Your task to perform on an android device: Empty the shopping cart on costco. Search for razer thresher on costco, select the first entry, add it to the cart, then select checkout. Image 0: 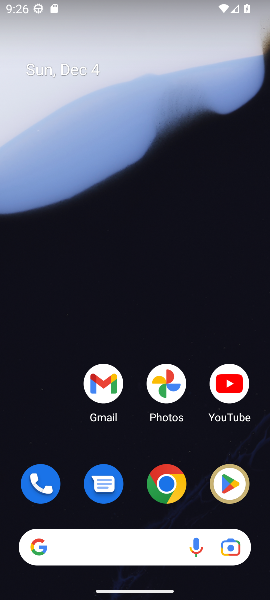
Step 0: click (173, 478)
Your task to perform on an android device: Empty the shopping cart on costco. Search for razer thresher on costco, select the first entry, add it to the cart, then select checkout. Image 1: 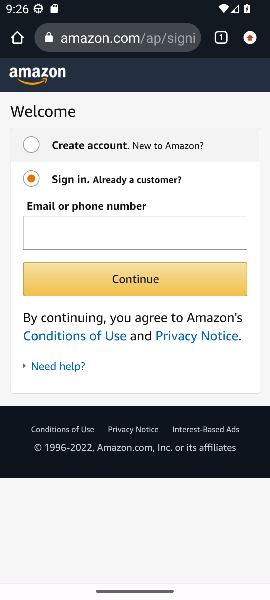
Step 1: click (122, 41)
Your task to perform on an android device: Empty the shopping cart on costco. Search for razer thresher on costco, select the first entry, add it to the cart, then select checkout. Image 2: 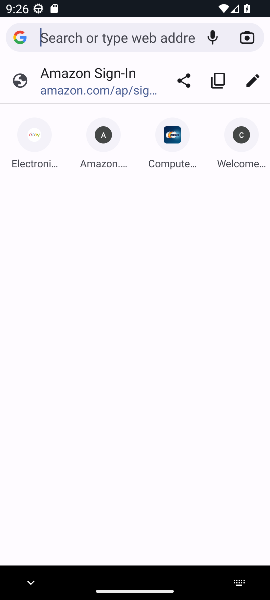
Step 2: type "costco.com"
Your task to perform on an android device: Empty the shopping cart on costco. Search for razer thresher on costco, select the first entry, add it to the cart, then select checkout. Image 3: 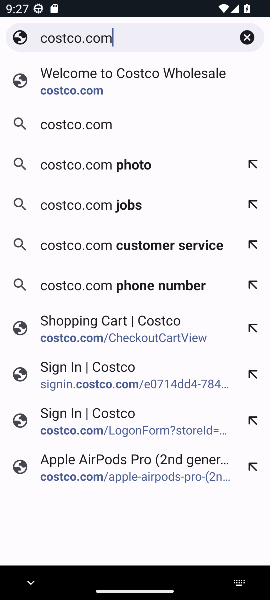
Step 3: click (69, 91)
Your task to perform on an android device: Empty the shopping cart on costco. Search for razer thresher on costco, select the first entry, add it to the cart, then select checkout. Image 4: 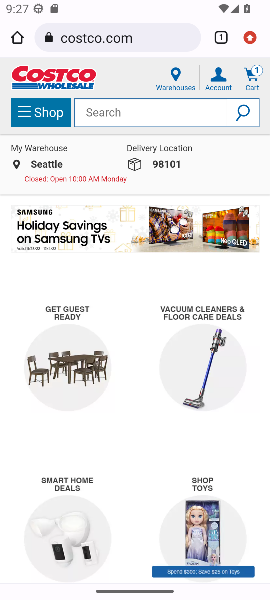
Step 4: click (252, 80)
Your task to perform on an android device: Empty the shopping cart on costco. Search for razer thresher on costco, select the first entry, add it to the cart, then select checkout. Image 5: 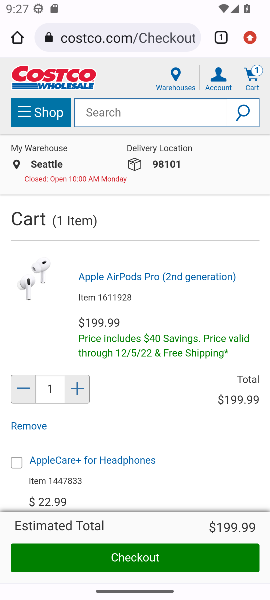
Step 5: drag from (163, 398) to (148, 197)
Your task to perform on an android device: Empty the shopping cart on costco. Search for razer thresher on costco, select the first entry, add it to the cart, then select checkout. Image 6: 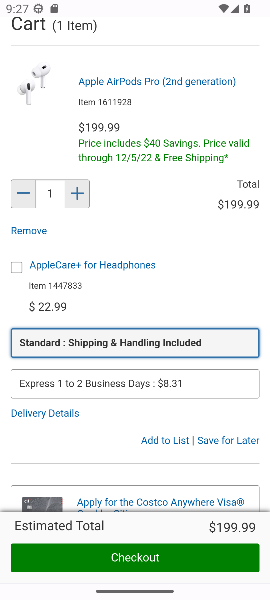
Step 6: click (232, 441)
Your task to perform on an android device: Empty the shopping cart on costco. Search for razer thresher on costco, select the first entry, add it to the cart, then select checkout. Image 7: 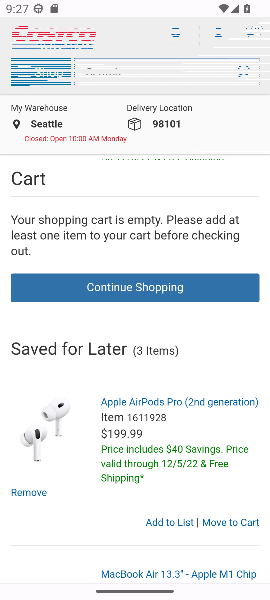
Step 7: drag from (189, 167) to (174, 248)
Your task to perform on an android device: Empty the shopping cart on costco. Search for razer thresher on costco, select the first entry, add it to the cart, then select checkout. Image 8: 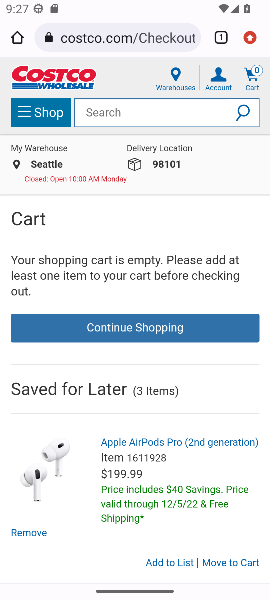
Step 8: click (109, 115)
Your task to perform on an android device: Empty the shopping cart on costco. Search for razer thresher on costco, select the first entry, add it to the cart, then select checkout. Image 9: 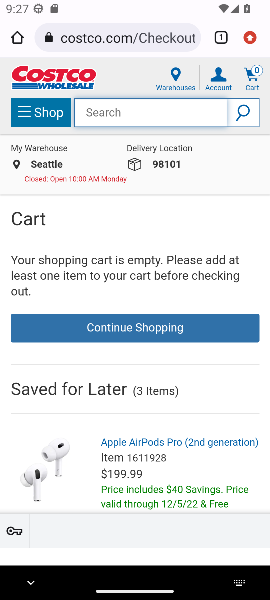
Step 9: type "razer thresher"
Your task to perform on an android device: Empty the shopping cart on costco. Search for razer thresher on costco, select the first entry, add it to the cart, then select checkout. Image 10: 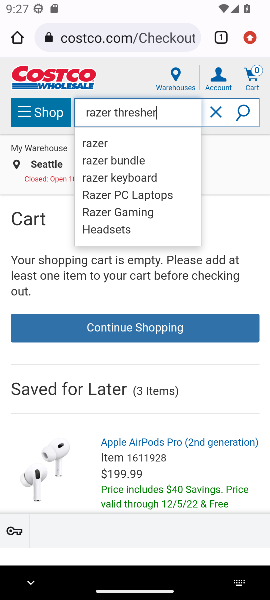
Step 10: click (245, 114)
Your task to perform on an android device: Empty the shopping cart on costco. Search for razer thresher on costco, select the first entry, add it to the cart, then select checkout. Image 11: 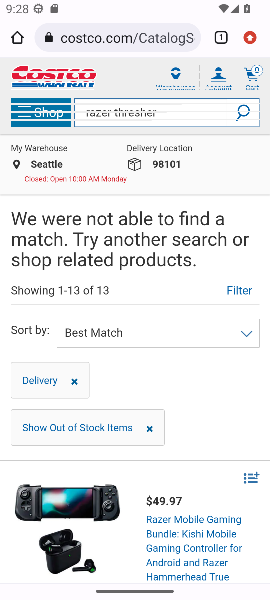
Step 11: task complete